Your task to perform on an android device: toggle notification dots Image 0: 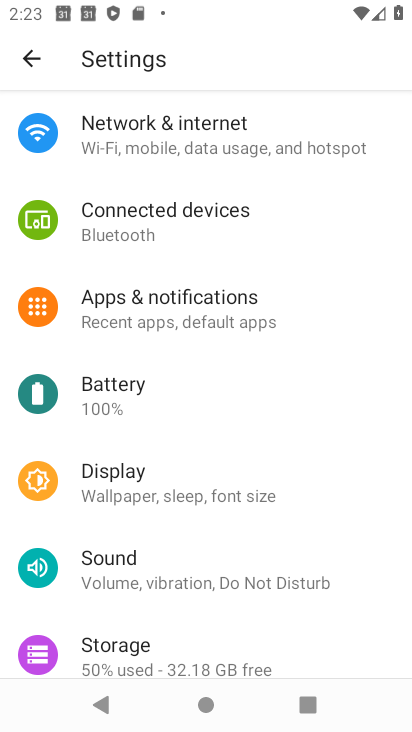
Step 0: click (170, 287)
Your task to perform on an android device: toggle notification dots Image 1: 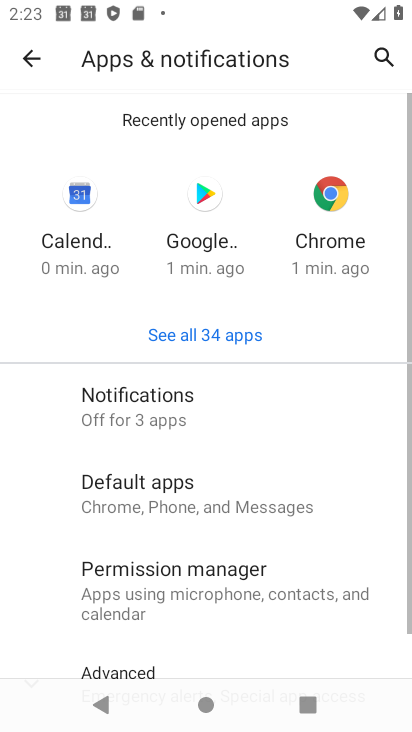
Step 1: drag from (219, 538) to (266, 91)
Your task to perform on an android device: toggle notification dots Image 2: 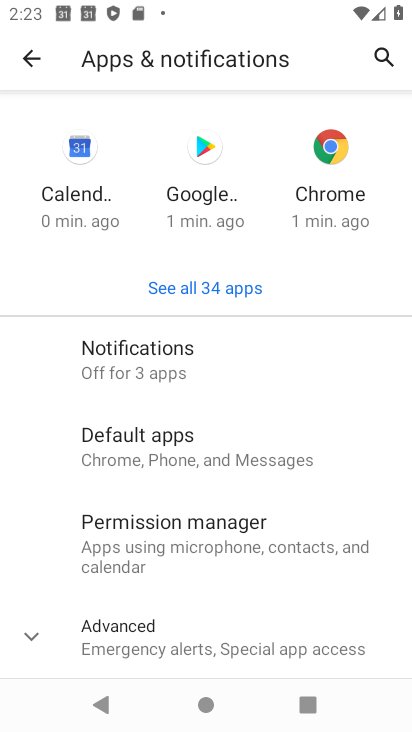
Step 2: click (188, 349)
Your task to perform on an android device: toggle notification dots Image 3: 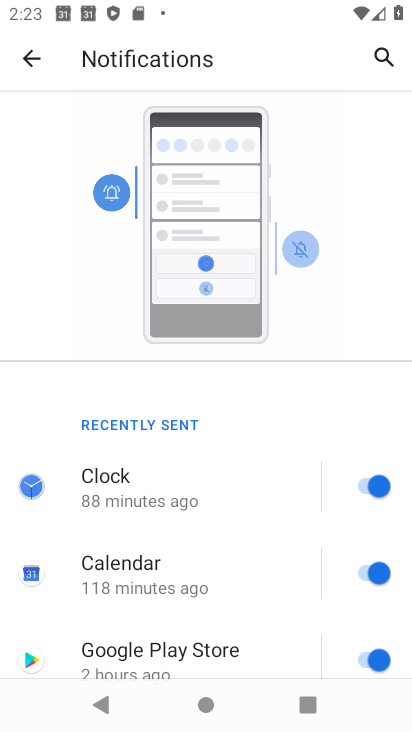
Step 3: drag from (221, 554) to (293, 113)
Your task to perform on an android device: toggle notification dots Image 4: 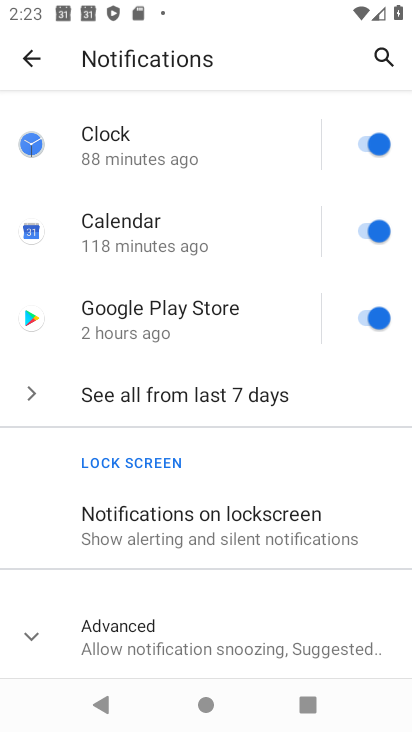
Step 4: drag from (196, 581) to (201, 137)
Your task to perform on an android device: toggle notification dots Image 5: 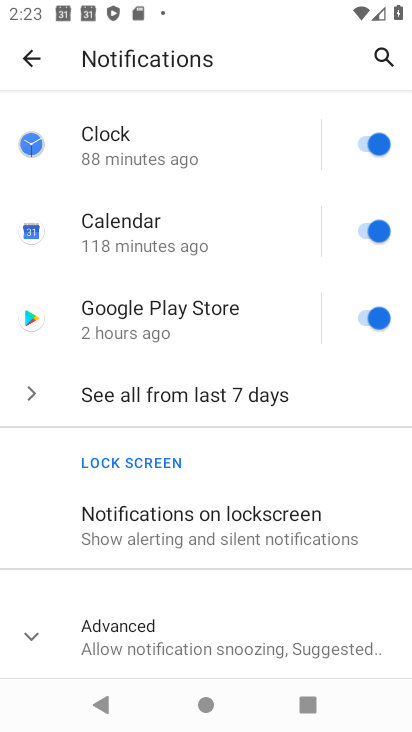
Step 5: click (180, 608)
Your task to perform on an android device: toggle notification dots Image 6: 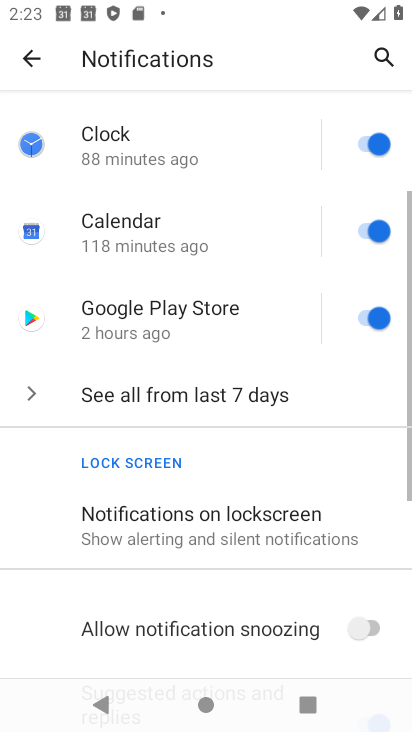
Step 6: drag from (213, 597) to (237, 107)
Your task to perform on an android device: toggle notification dots Image 7: 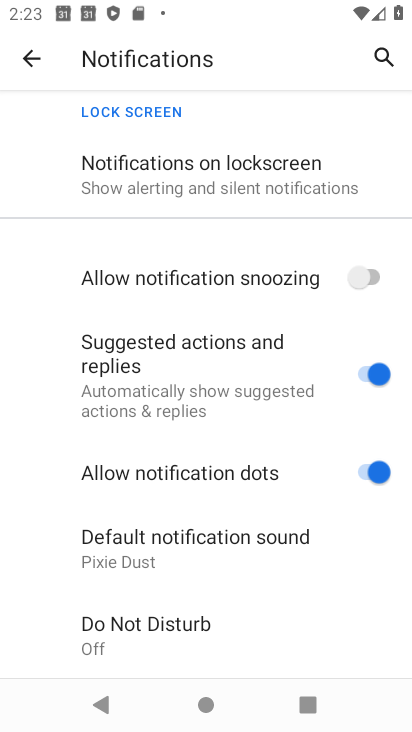
Step 7: click (369, 486)
Your task to perform on an android device: toggle notification dots Image 8: 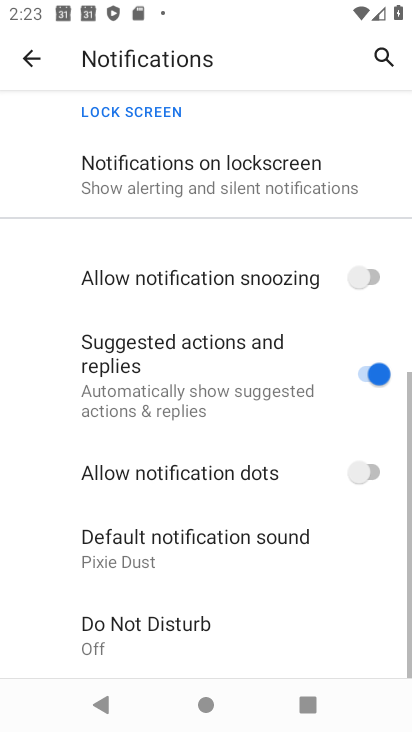
Step 8: task complete